Your task to perform on an android device: Open calendar and show me the first week of next month Image 0: 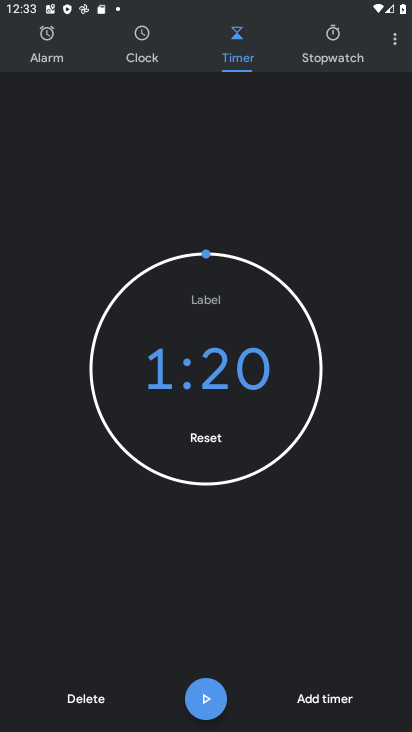
Step 0: press home button
Your task to perform on an android device: Open calendar and show me the first week of next month Image 1: 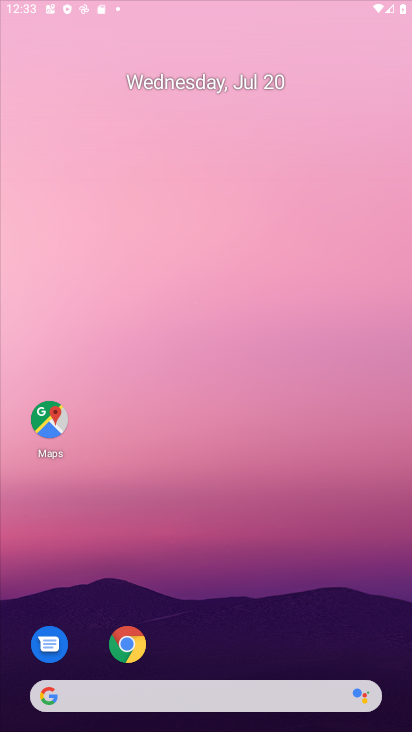
Step 1: drag from (183, 666) to (231, 0)
Your task to perform on an android device: Open calendar and show me the first week of next month Image 2: 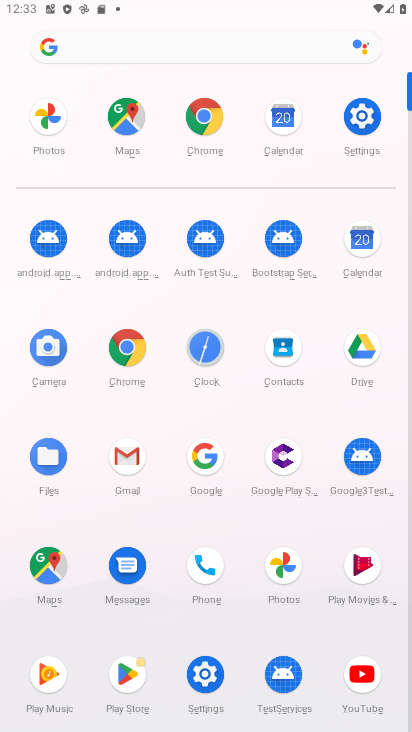
Step 2: click (373, 248)
Your task to perform on an android device: Open calendar and show me the first week of next month Image 3: 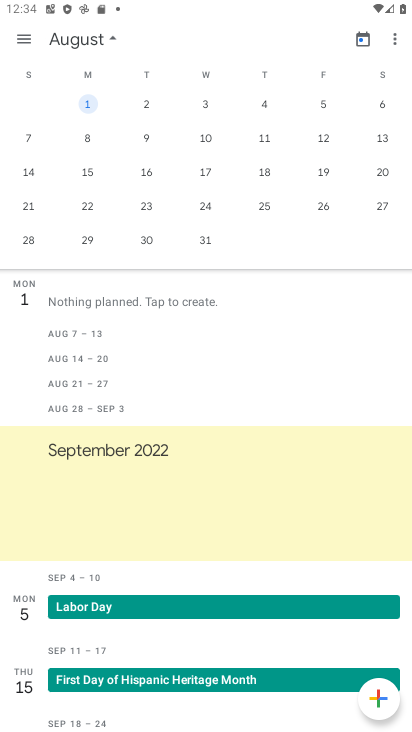
Step 3: task complete